Your task to perform on an android device: Open internet settings Image 0: 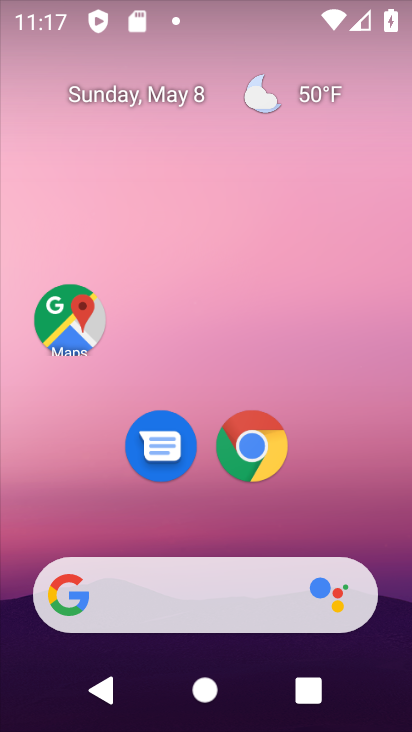
Step 0: drag from (333, 498) to (287, 120)
Your task to perform on an android device: Open internet settings Image 1: 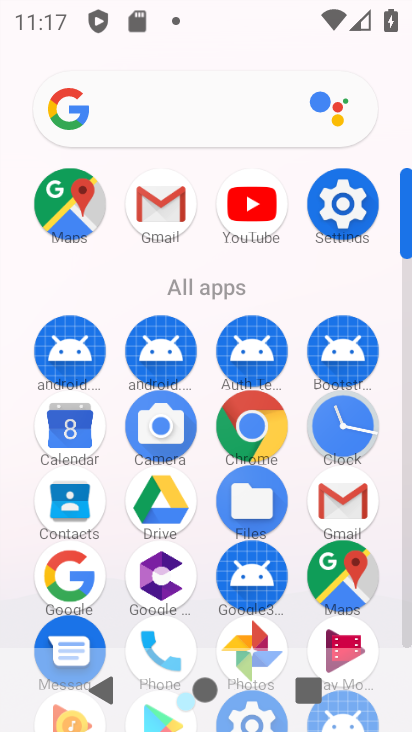
Step 1: click (325, 204)
Your task to perform on an android device: Open internet settings Image 2: 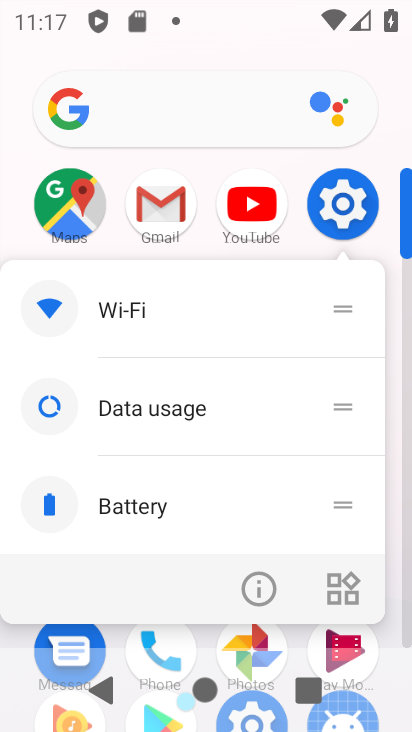
Step 2: click (325, 204)
Your task to perform on an android device: Open internet settings Image 3: 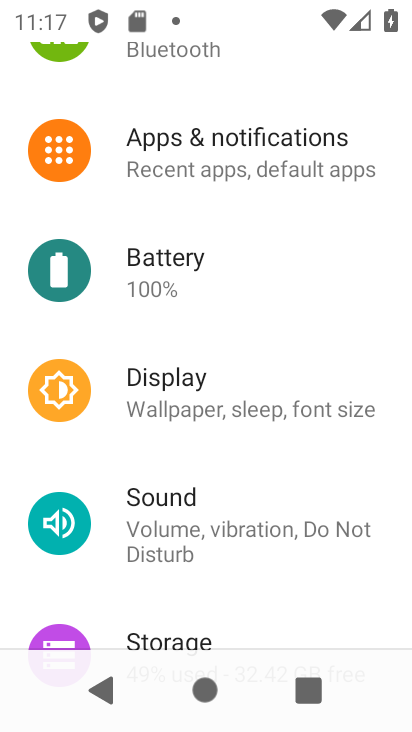
Step 3: drag from (230, 278) to (273, 375)
Your task to perform on an android device: Open internet settings Image 4: 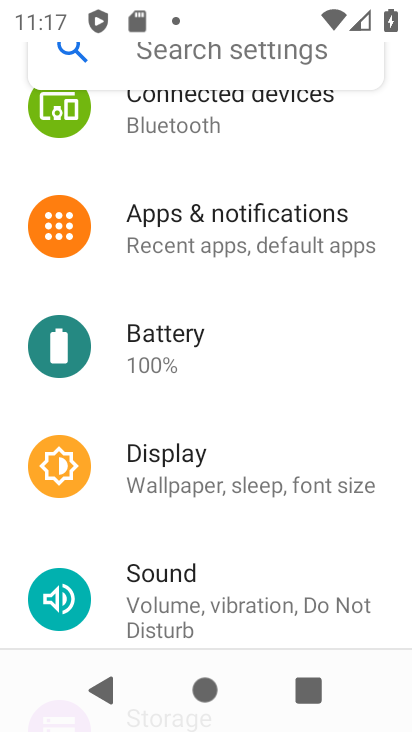
Step 4: drag from (256, 307) to (284, 396)
Your task to perform on an android device: Open internet settings Image 5: 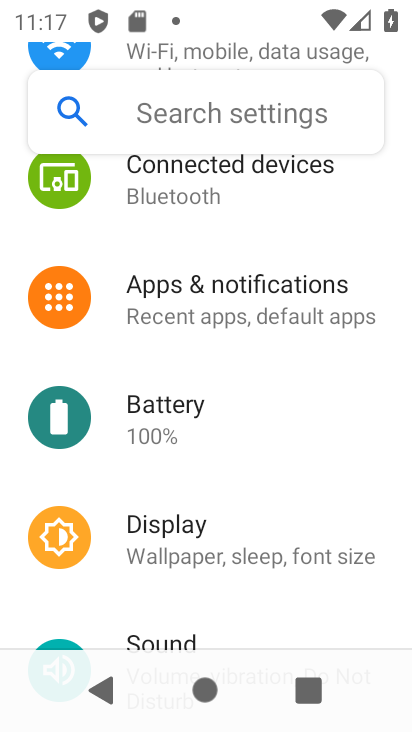
Step 5: drag from (230, 202) to (280, 373)
Your task to perform on an android device: Open internet settings Image 6: 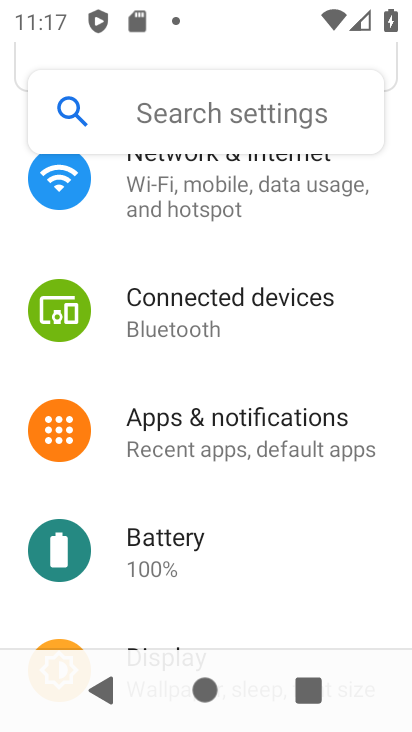
Step 6: click (255, 206)
Your task to perform on an android device: Open internet settings Image 7: 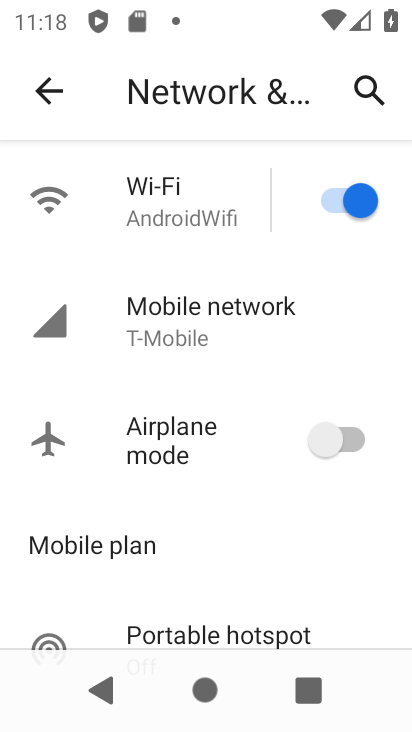
Step 7: click (185, 304)
Your task to perform on an android device: Open internet settings Image 8: 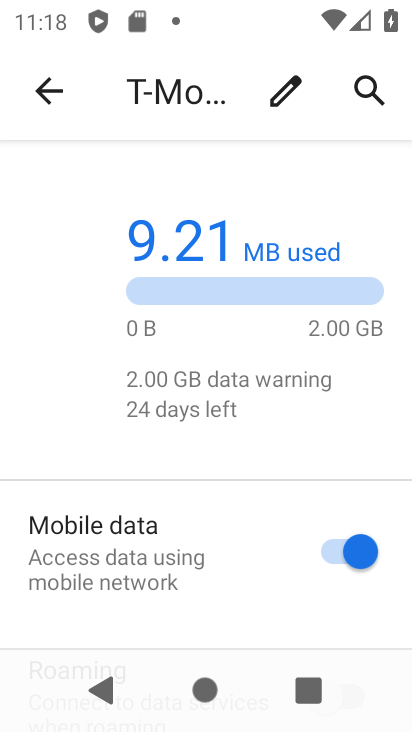
Step 8: task complete